Your task to perform on an android device: Show me popular videos on Youtube Image 0: 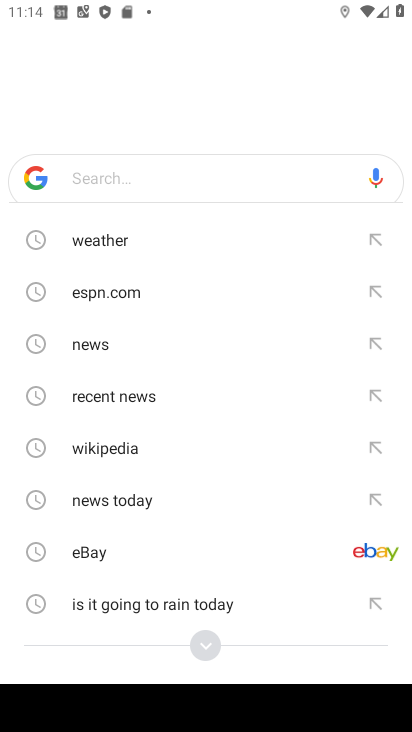
Step 0: press home button
Your task to perform on an android device: Show me popular videos on Youtube Image 1: 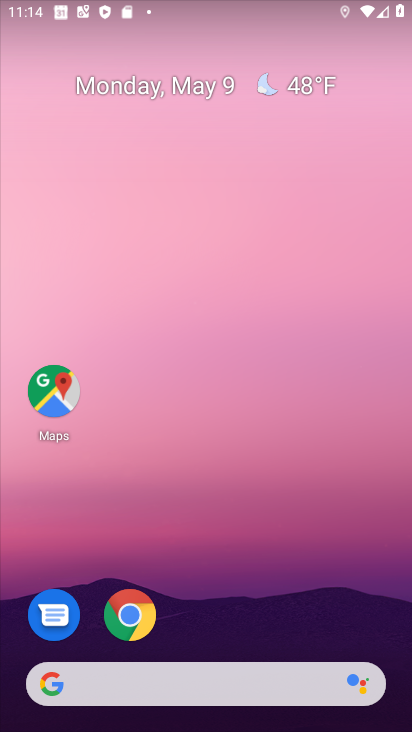
Step 1: drag from (259, 571) to (195, 13)
Your task to perform on an android device: Show me popular videos on Youtube Image 2: 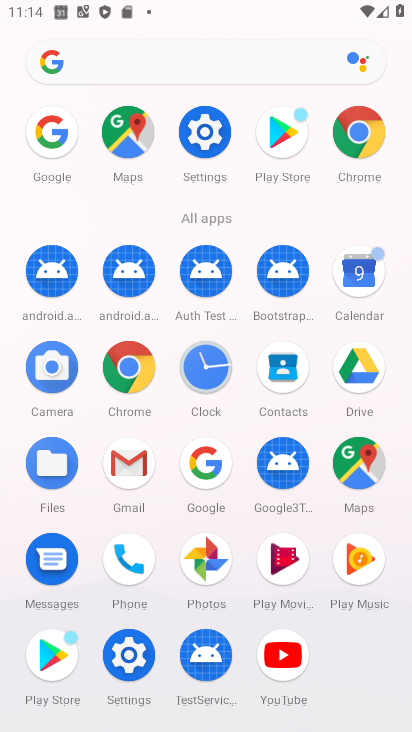
Step 2: click (275, 644)
Your task to perform on an android device: Show me popular videos on Youtube Image 3: 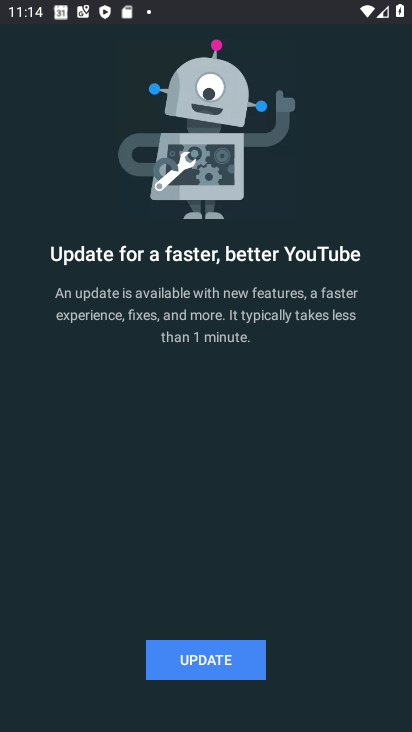
Step 3: click (214, 659)
Your task to perform on an android device: Show me popular videos on Youtube Image 4: 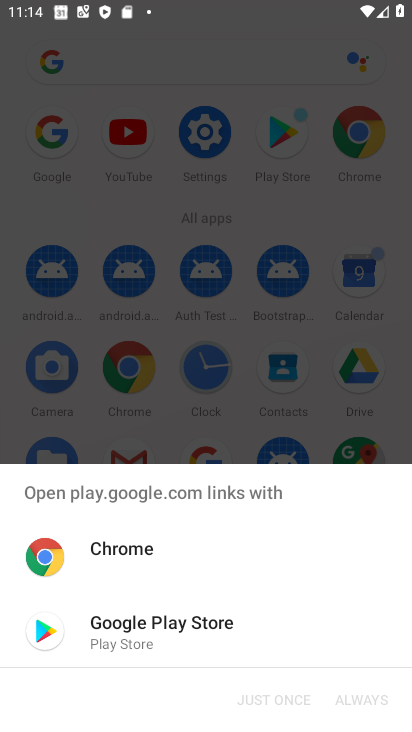
Step 4: click (169, 625)
Your task to perform on an android device: Show me popular videos on Youtube Image 5: 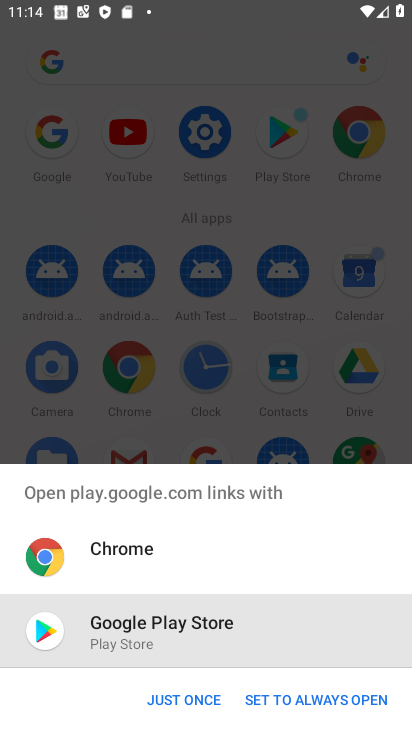
Step 5: click (170, 712)
Your task to perform on an android device: Show me popular videos on Youtube Image 6: 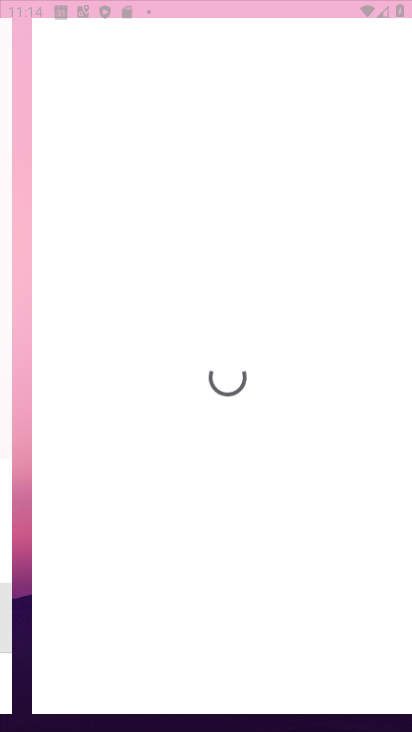
Step 6: click (165, 698)
Your task to perform on an android device: Show me popular videos on Youtube Image 7: 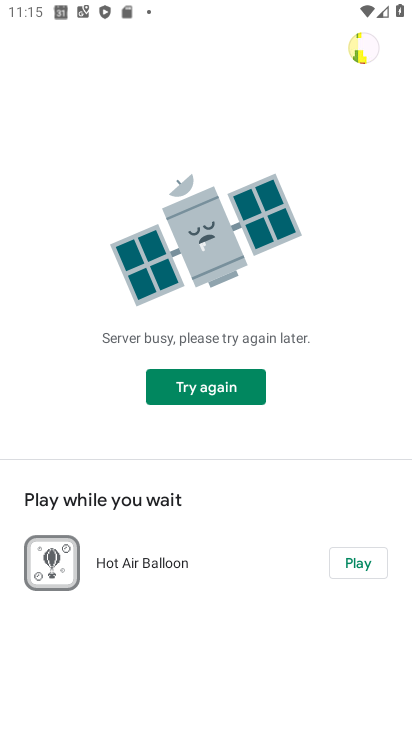
Step 7: task complete